Your task to perform on an android device: open a new tab in the chrome app Image 0: 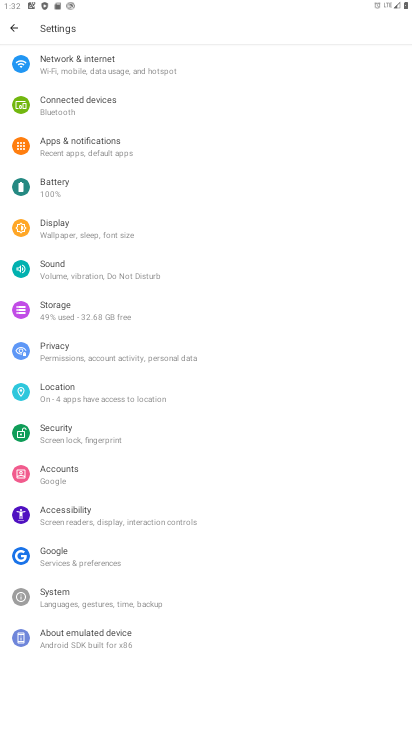
Step 0: press home button
Your task to perform on an android device: open a new tab in the chrome app Image 1: 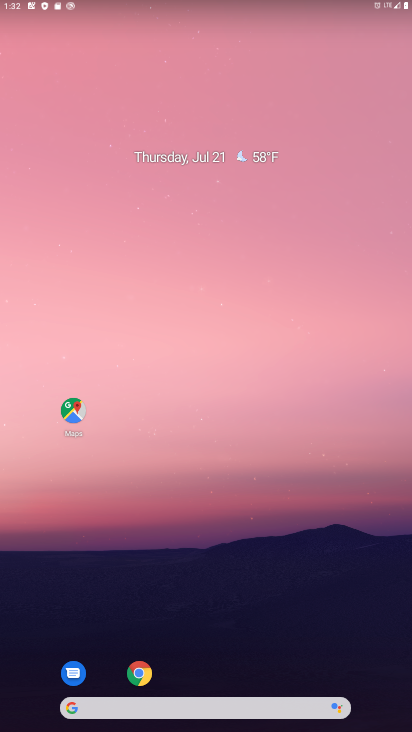
Step 1: click (143, 675)
Your task to perform on an android device: open a new tab in the chrome app Image 2: 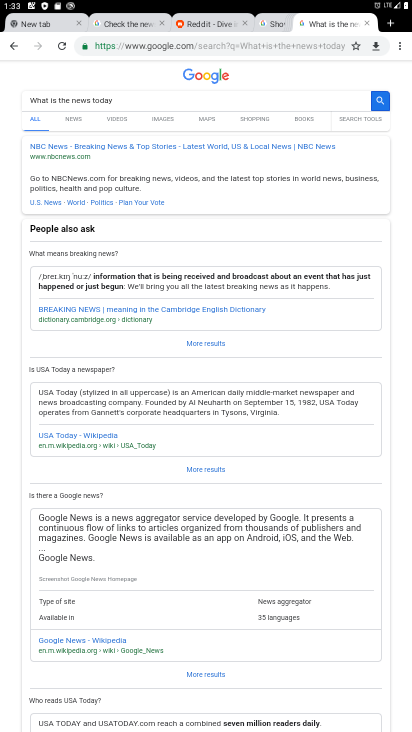
Step 2: click (393, 24)
Your task to perform on an android device: open a new tab in the chrome app Image 3: 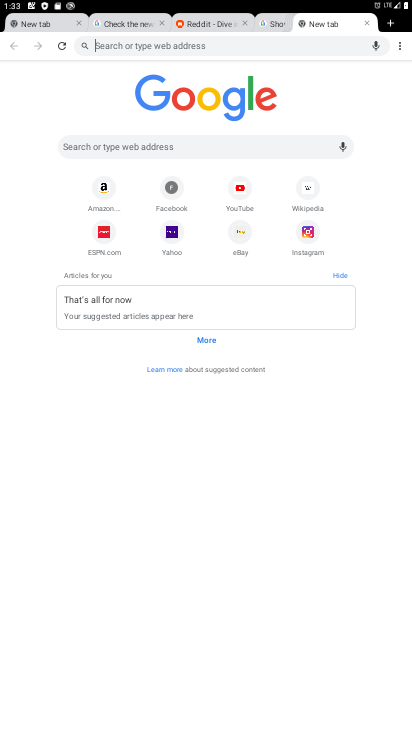
Step 3: task complete